Your task to perform on an android device: Go to location settings Image 0: 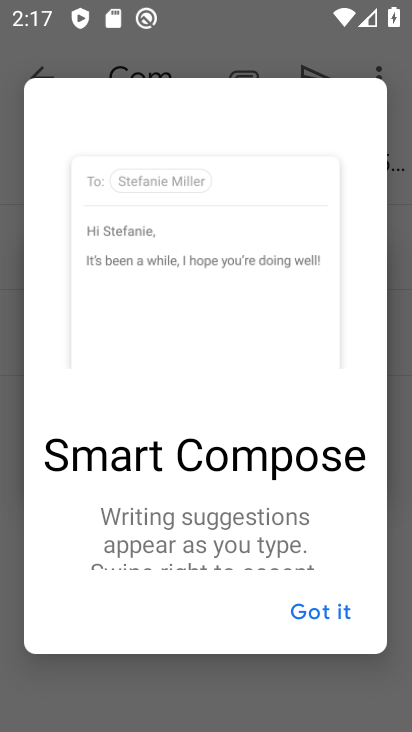
Step 0: press home button
Your task to perform on an android device: Go to location settings Image 1: 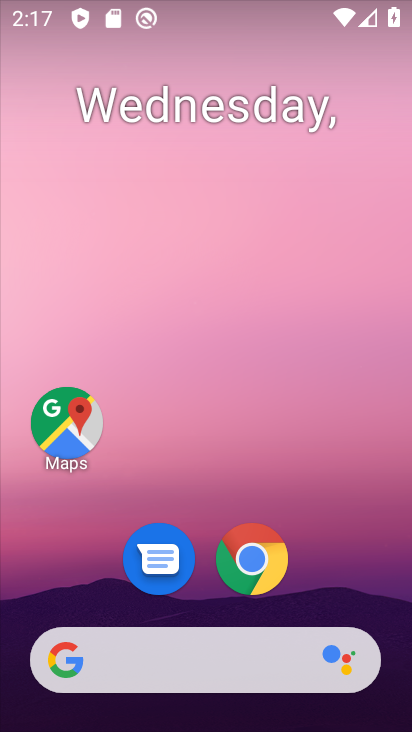
Step 1: drag from (387, 592) to (392, 80)
Your task to perform on an android device: Go to location settings Image 2: 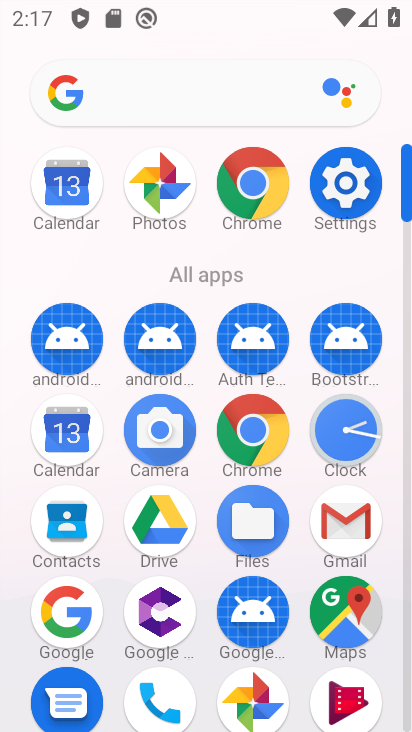
Step 2: click (356, 189)
Your task to perform on an android device: Go to location settings Image 3: 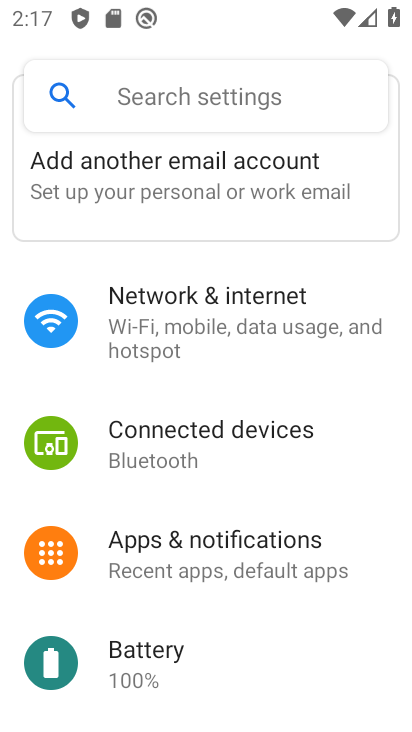
Step 3: drag from (365, 515) to (366, 427)
Your task to perform on an android device: Go to location settings Image 4: 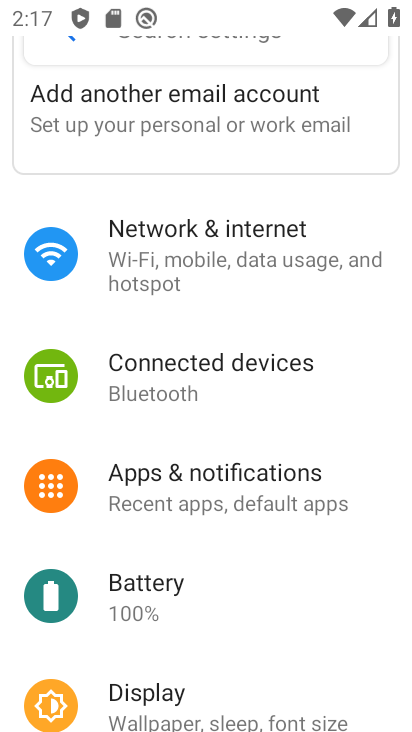
Step 4: drag from (365, 567) to (365, 458)
Your task to perform on an android device: Go to location settings Image 5: 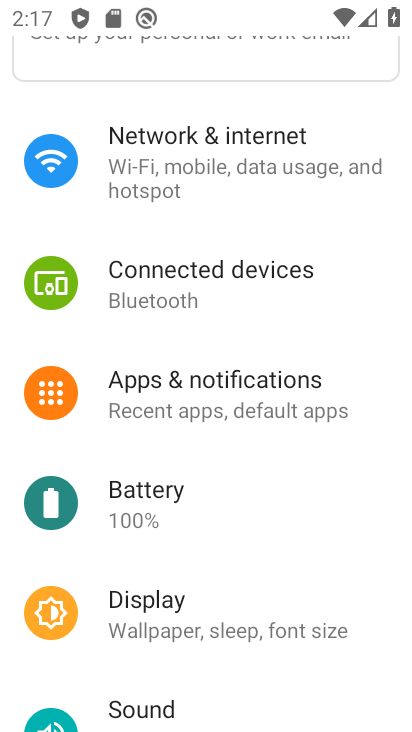
Step 5: drag from (368, 515) to (367, 452)
Your task to perform on an android device: Go to location settings Image 6: 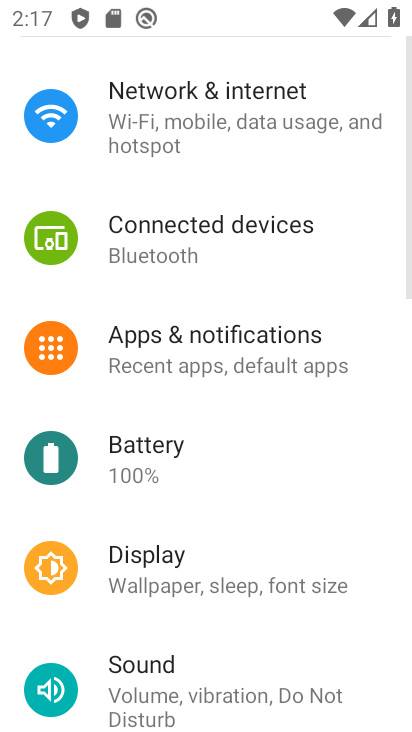
Step 6: drag from (356, 548) to (360, 428)
Your task to perform on an android device: Go to location settings Image 7: 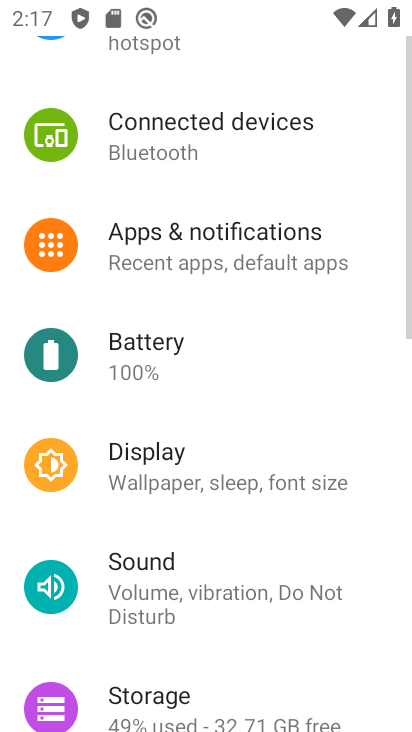
Step 7: drag from (364, 549) to (368, 448)
Your task to perform on an android device: Go to location settings Image 8: 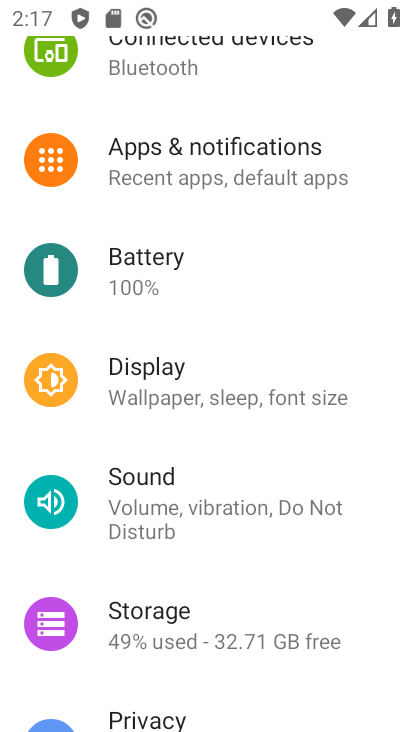
Step 8: drag from (368, 549) to (374, 465)
Your task to perform on an android device: Go to location settings Image 9: 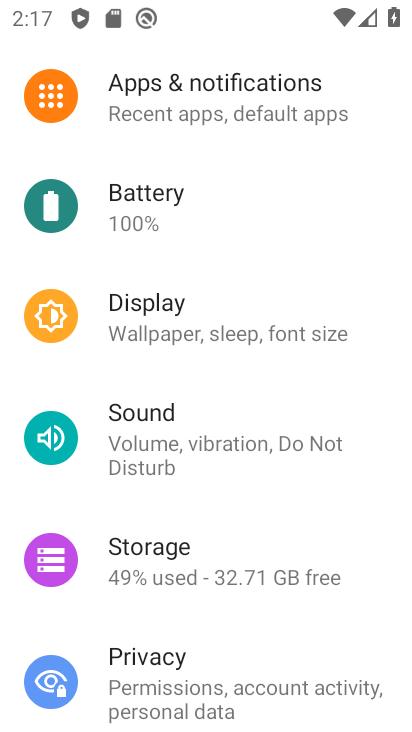
Step 9: drag from (358, 562) to (357, 465)
Your task to perform on an android device: Go to location settings Image 10: 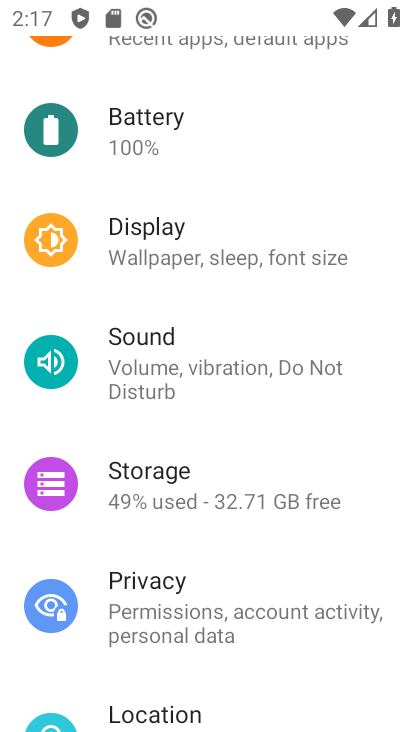
Step 10: drag from (369, 552) to (374, 449)
Your task to perform on an android device: Go to location settings Image 11: 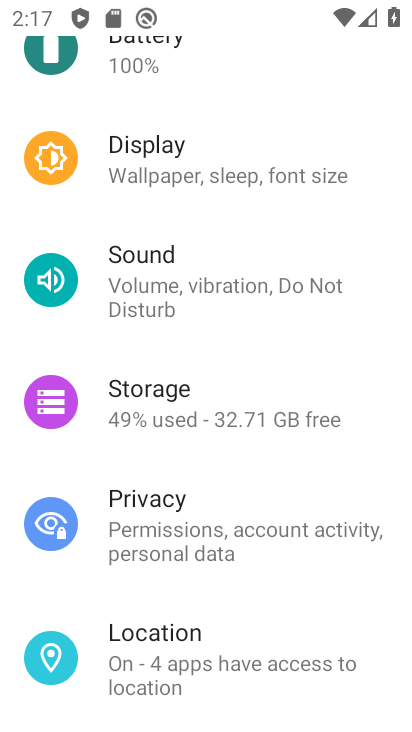
Step 11: drag from (374, 567) to (377, 466)
Your task to perform on an android device: Go to location settings Image 12: 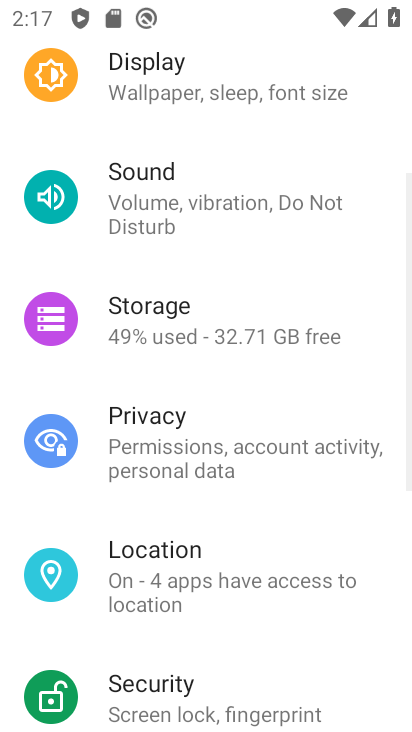
Step 12: drag from (369, 573) to (372, 497)
Your task to perform on an android device: Go to location settings Image 13: 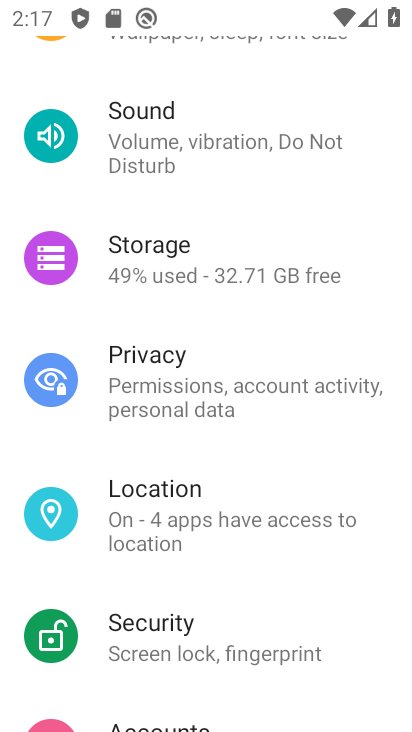
Step 13: drag from (372, 593) to (372, 517)
Your task to perform on an android device: Go to location settings Image 14: 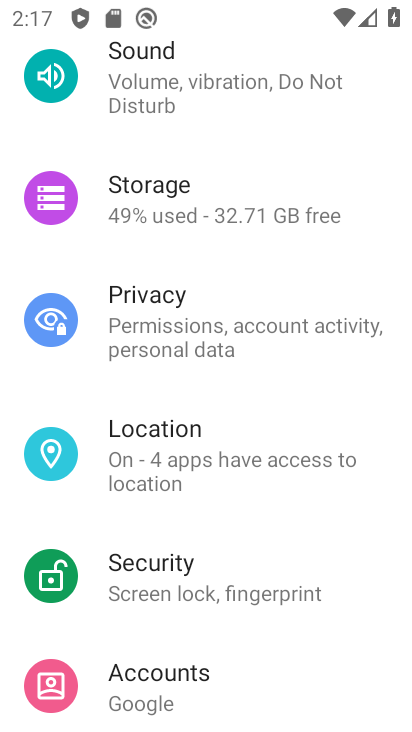
Step 14: drag from (372, 598) to (372, 494)
Your task to perform on an android device: Go to location settings Image 15: 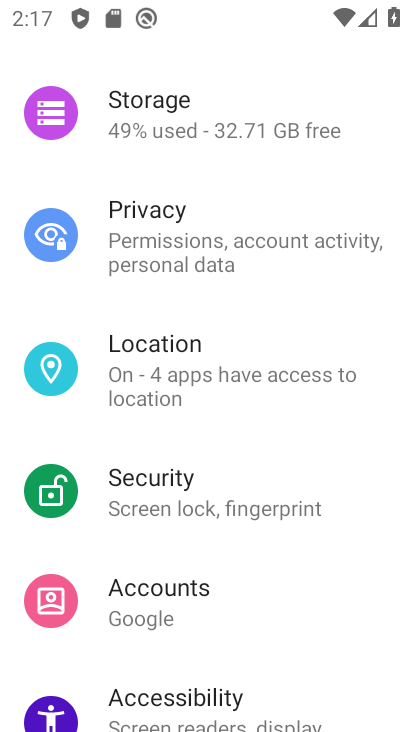
Step 15: drag from (358, 576) to (361, 482)
Your task to perform on an android device: Go to location settings Image 16: 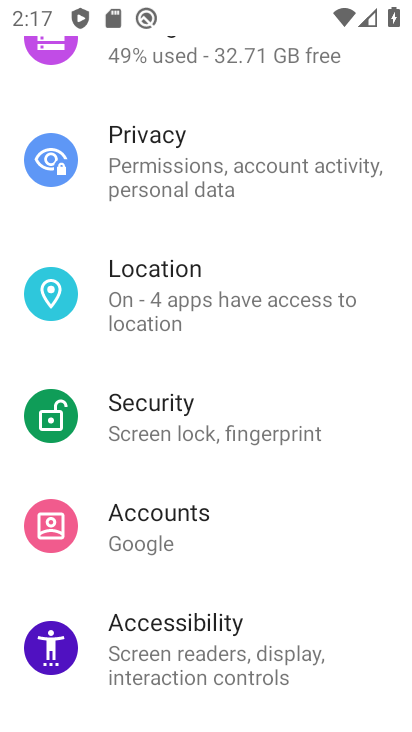
Step 16: drag from (351, 566) to (349, 415)
Your task to perform on an android device: Go to location settings Image 17: 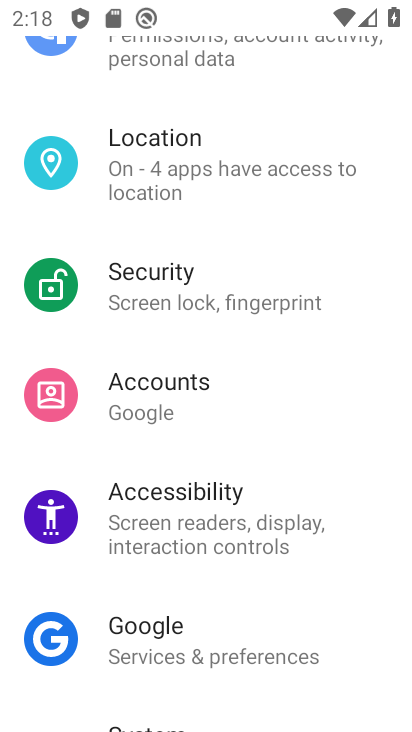
Step 17: drag from (353, 560) to (345, 284)
Your task to perform on an android device: Go to location settings Image 18: 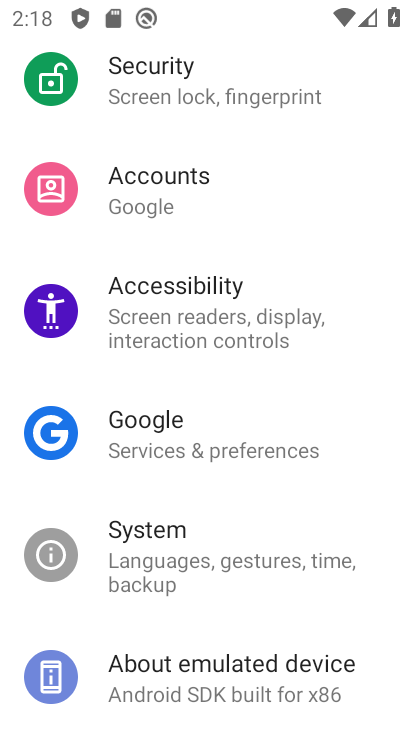
Step 18: drag from (348, 246) to (349, 364)
Your task to perform on an android device: Go to location settings Image 19: 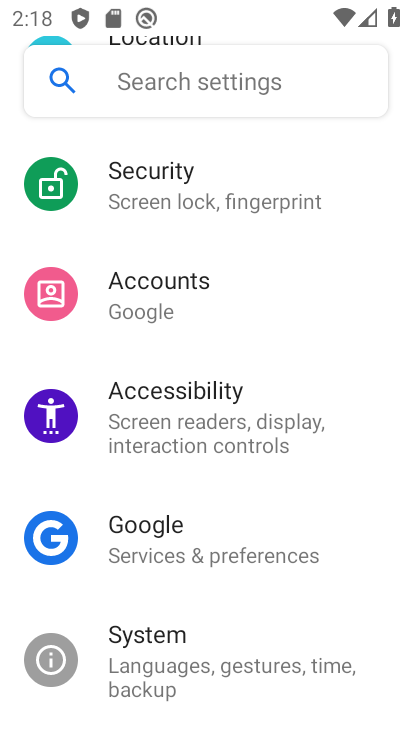
Step 19: drag from (349, 236) to (348, 358)
Your task to perform on an android device: Go to location settings Image 20: 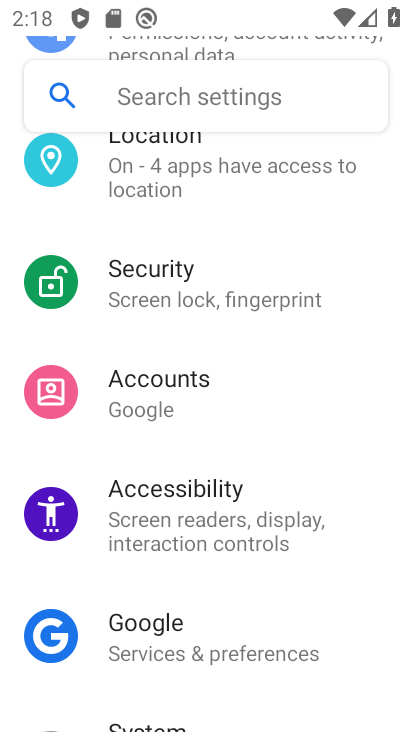
Step 20: drag from (356, 225) to (356, 354)
Your task to perform on an android device: Go to location settings Image 21: 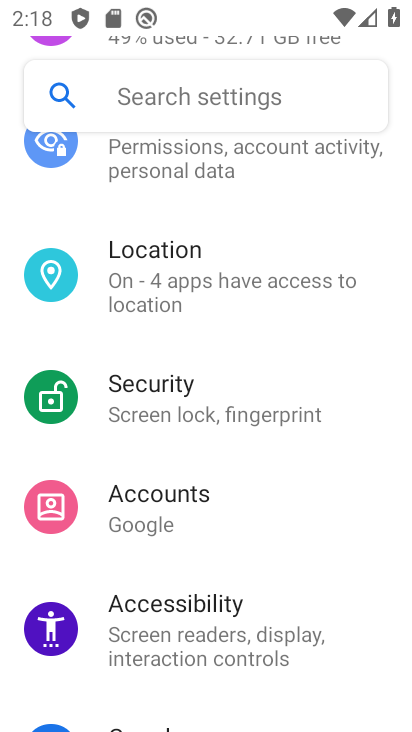
Step 21: drag from (363, 240) to (359, 565)
Your task to perform on an android device: Go to location settings Image 22: 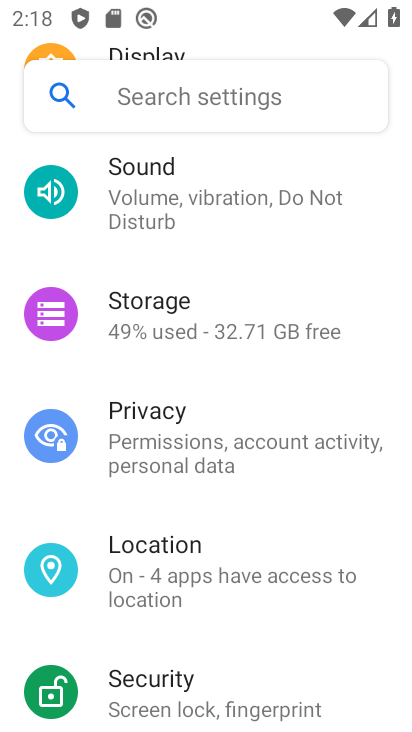
Step 22: click (209, 573)
Your task to perform on an android device: Go to location settings Image 23: 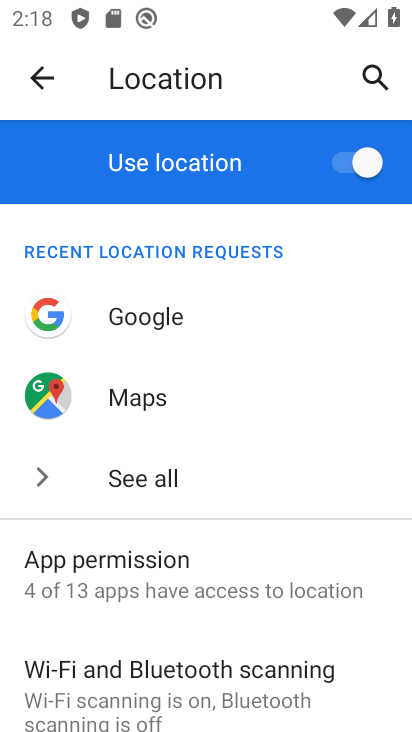
Step 23: task complete